Your task to perform on an android device: change the clock display to digital Image 0: 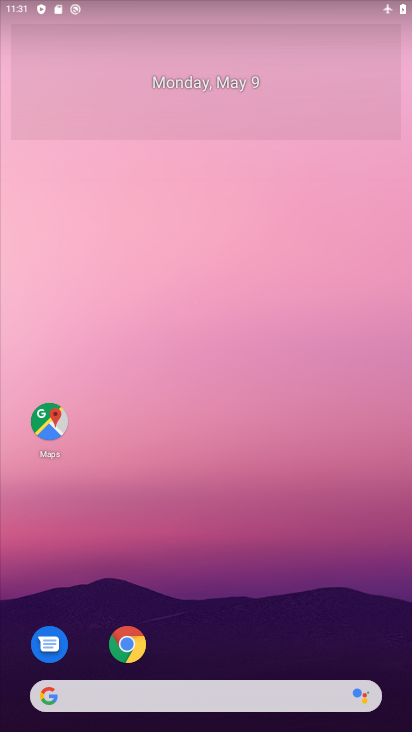
Step 0: drag from (232, 439) to (232, 95)
Your task to perform on an android device: change the clock display to digital Image 1: 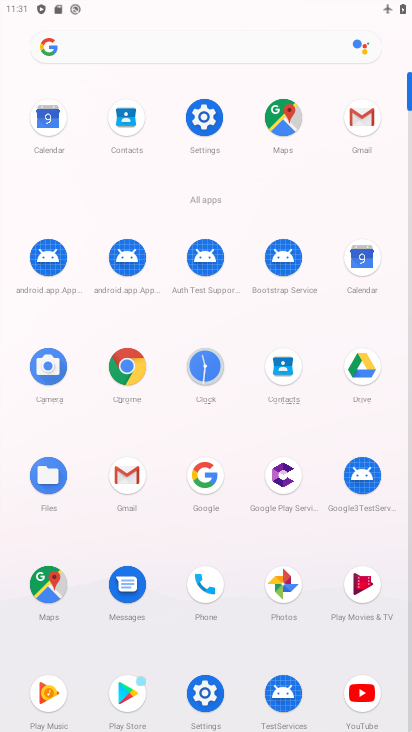
Step 1: click (210, 375)
Your task to perform on an android device: change the clock display to digital Image 2: 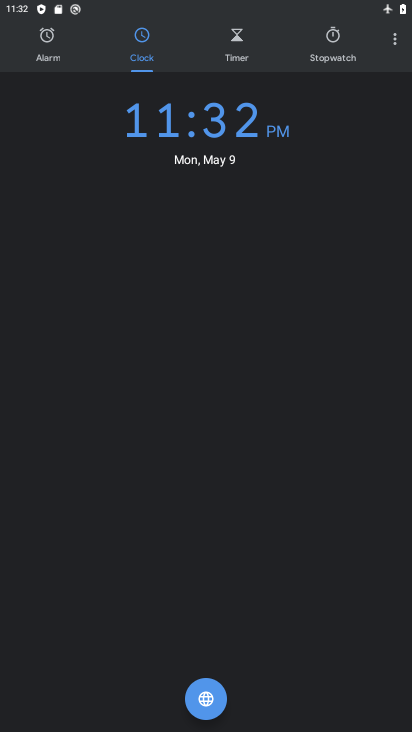
Step 2: click (389, 44)
Your task to perform on an android device: change the clock display to digital Image 3: 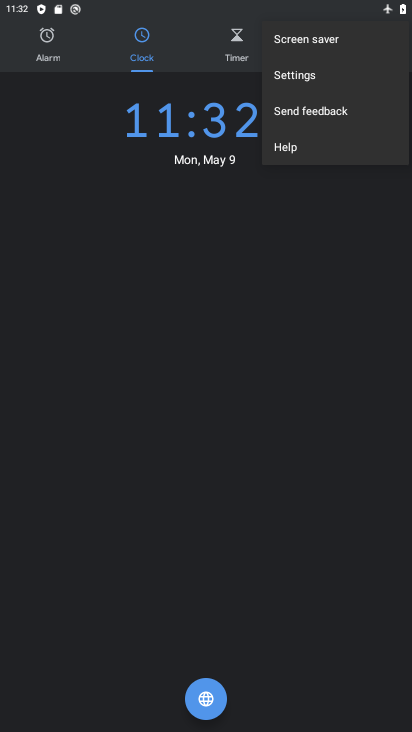
Step 3: click (336, 73)
Your task to perform on an android device: change the clock display to digital Image 4: 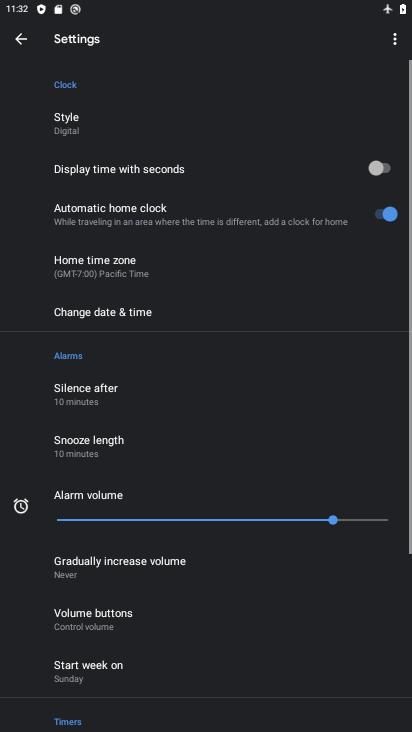
Step 4: click (85, 133)
Your task to perform on an android device: change the clock display to digital Image 5: 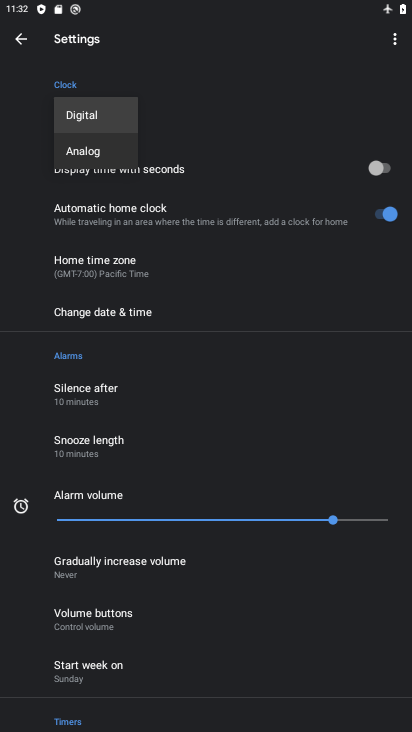
Step 5: task complete